Your task to perform on an android device: Open Google Chrome Image 0: 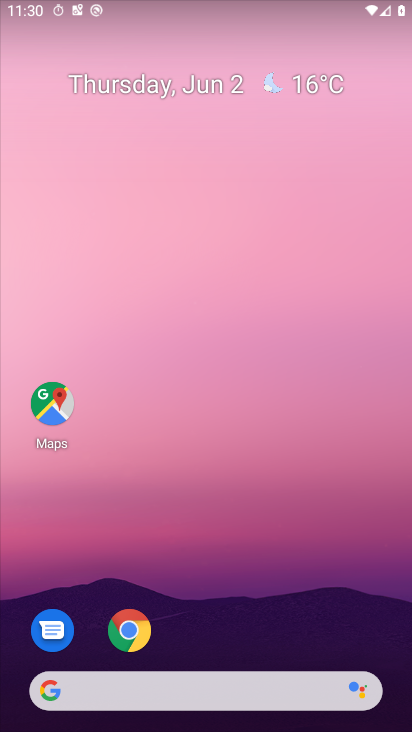
Step 0: click (270, 545)
Your task to perform on an android device: Open Google Chrome Image 1: 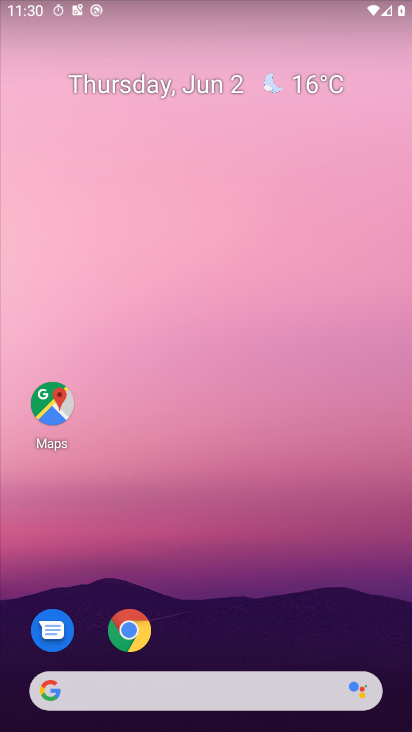
Step 1: click (125, 626)
Your task to perform on an android device: Open Google Chrome Image 2: 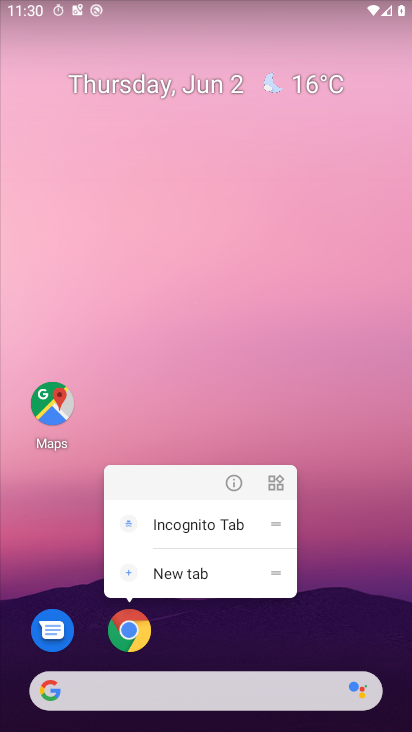
Step 2: click (130, 627)
Your task to perform on an android device: Open Google Chrome Image 3: 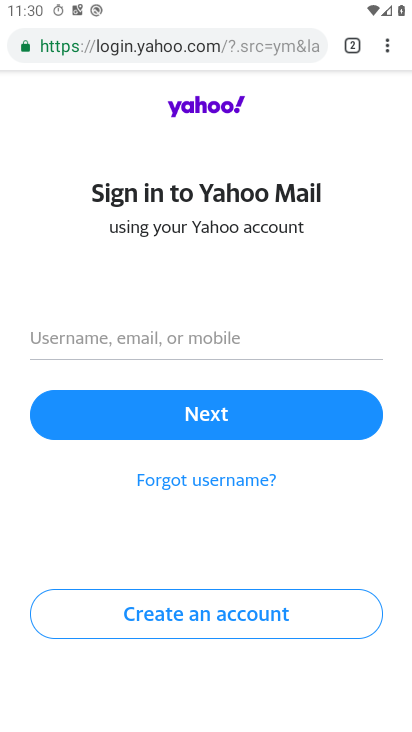
Step 3: task complete